Your task to perform on an android device: Go to wifi settings Image 0: 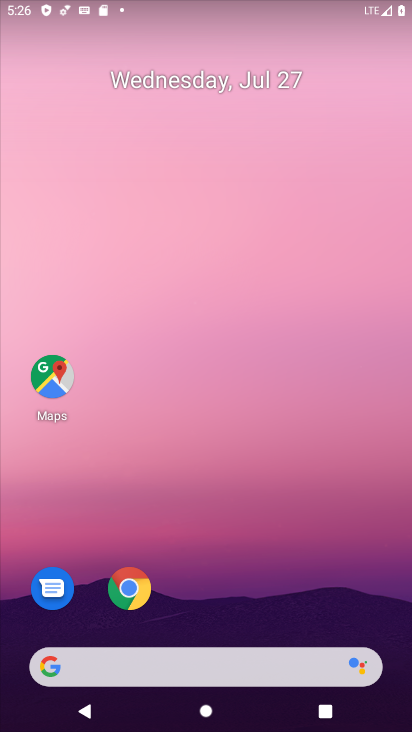
Step 0: drag from (244, 667) to (327, 0)
Your task to perform on an android device: Go to wifi settings Image 1: 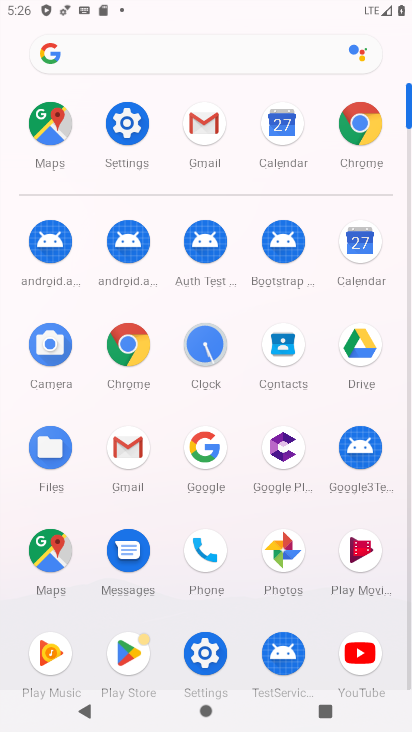
Step 1: click (126, 108)
Your task to perform on an android device: Go to wifi settings Image 2: 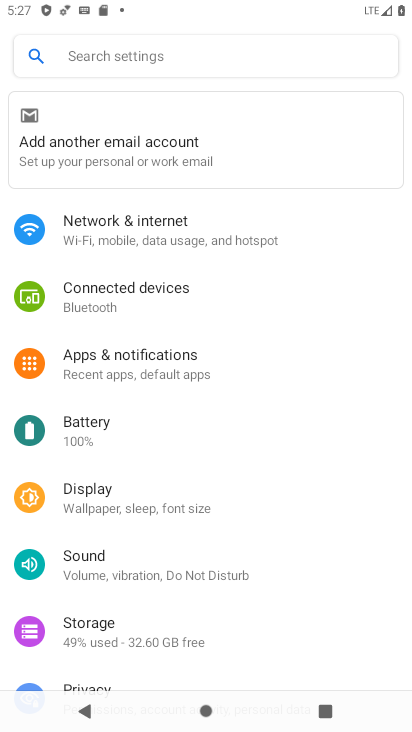
Step 2: click (71, 227)
Your task to perform on an android device: Go to wifi settings Image 3: 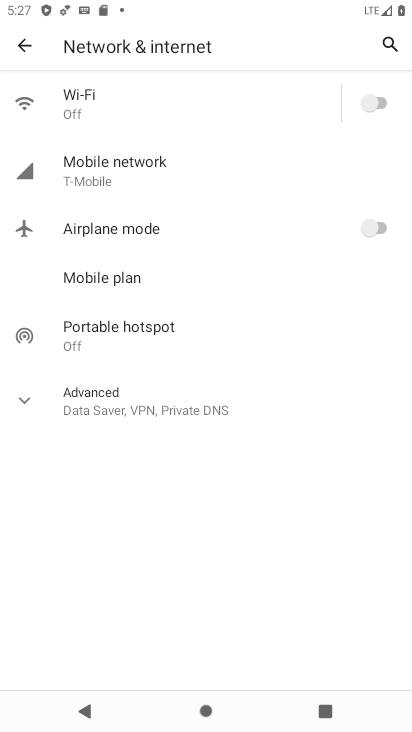
Step 3: click (106, 102)
Your task to perform on an android device: Go to wifi settings Image 4: 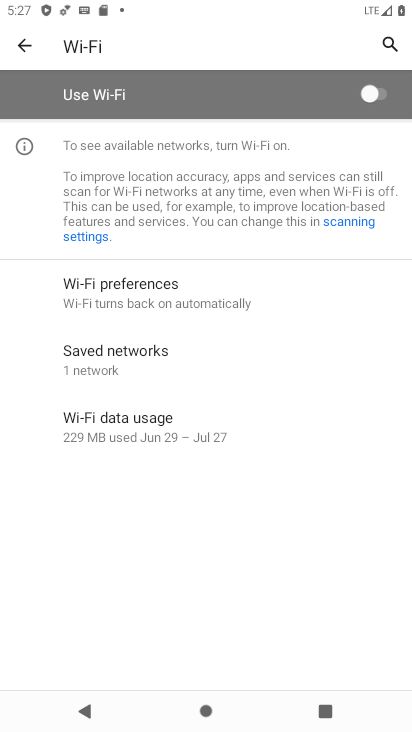
Step 4: task complete